Your task to perform on an android device: check storage Image 0: 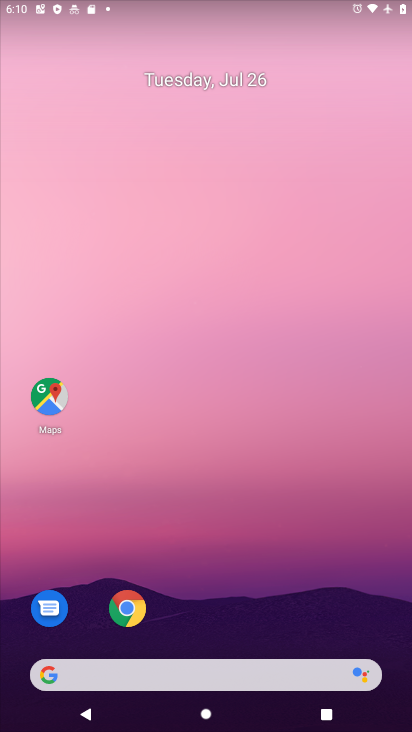
Step 0: press home button
Your task to perform on an android device: check storage Image 1: 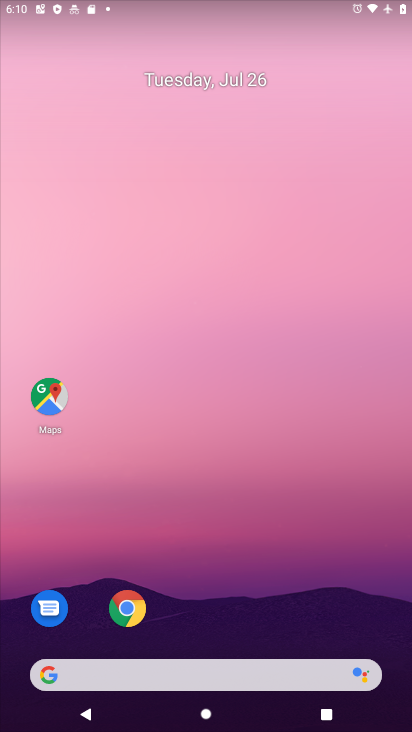
Step 1: drag from (240, 623) to (238, 155)
Your task to perform on an android device: check storage Image 2: 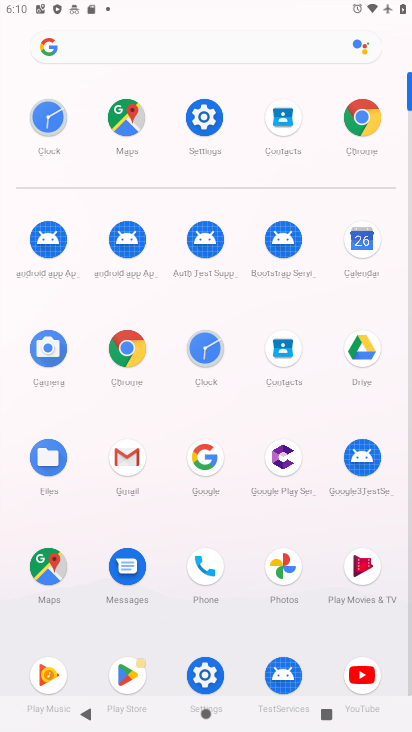
Step 2: click (201, 127)
Your task to perform on an android device: check storage Image 3: 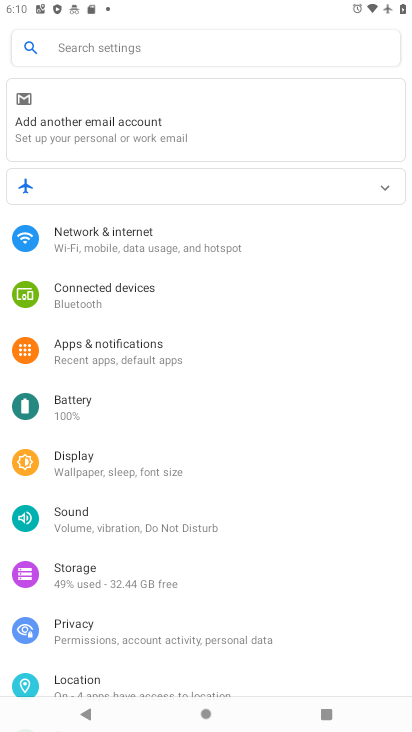
Step 3: click (66, 566)
Your task to perform on an android device: check storage Image 4: 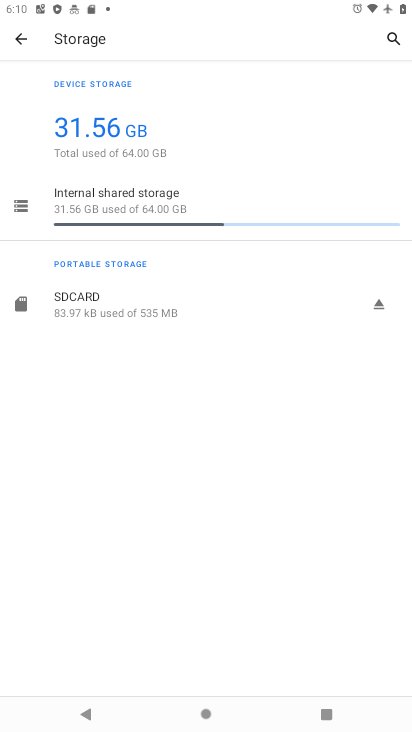
Step 4: task complete